Your task to perform on an android device: change notification settings in the gmail app Image 0: 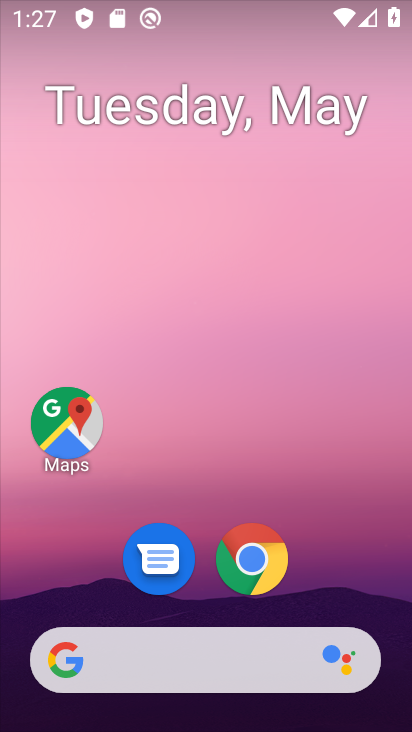
Step 0: drag from (396, 654) to (300, 52)
Your task to perform on an android device: change notification settings in the gmail app Image 1: 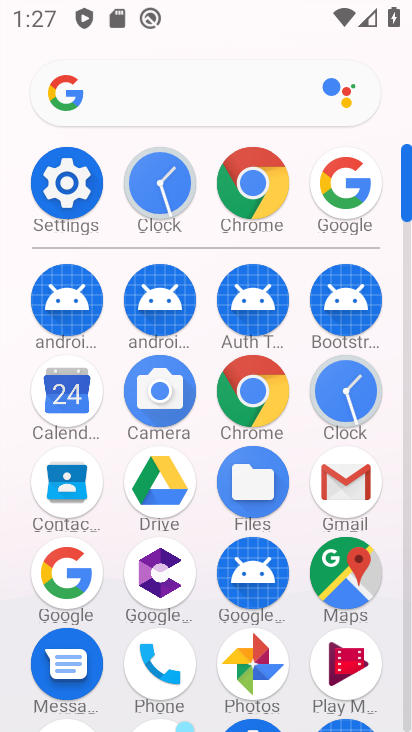
Step 1: click (341, 496)
Your task to perform on an android device: change notification settings in the gmail app Image 2: 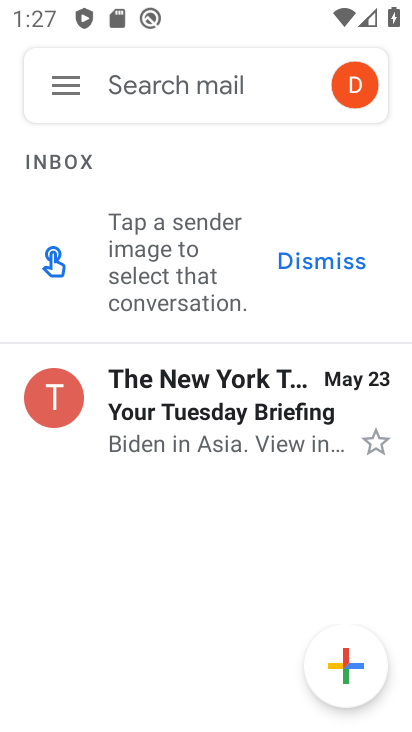
Step 2: click (51, 92)
Your task to perform on an android device: change notification settings in the gmail app Image 3: 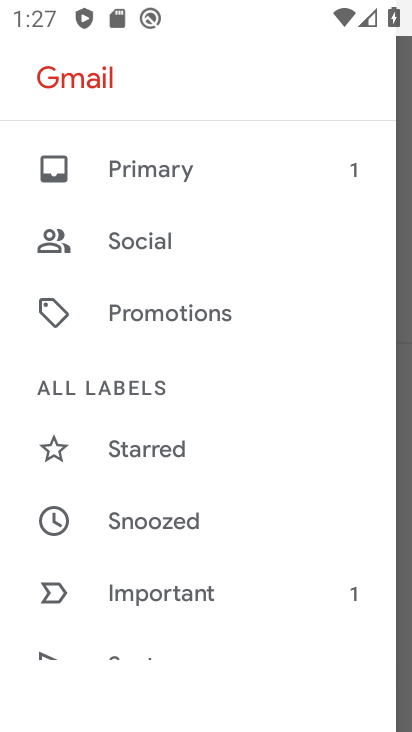
Step 3: drag from (162, 629) to (235, 192)
Your task to perform on an android device: change notification settings in the gmail app Image 4: 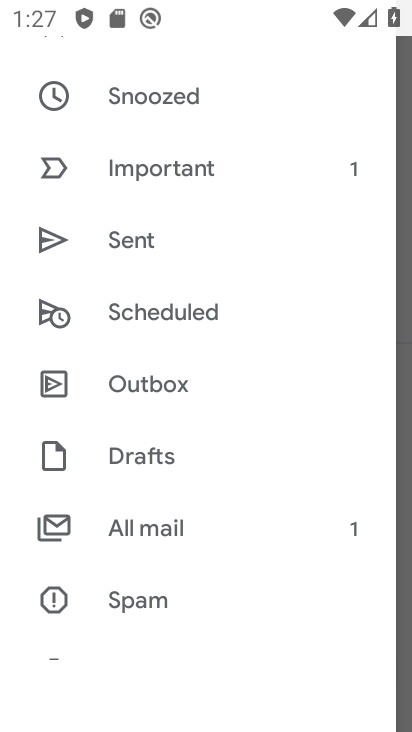
Step 4: drag from (181, 563) to (245, 128)
Your task to perform on an android device: change notification settings in the gmail app Image 5: 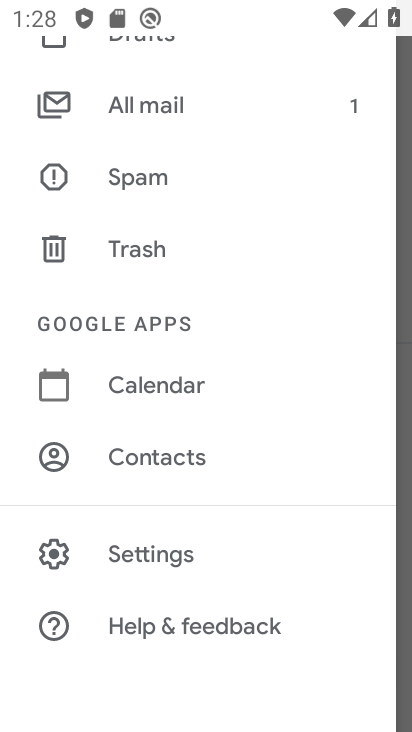
Step 5: click (198, 576)
Your task to perform on an android device: change notification settings in the gmail app Image 6: 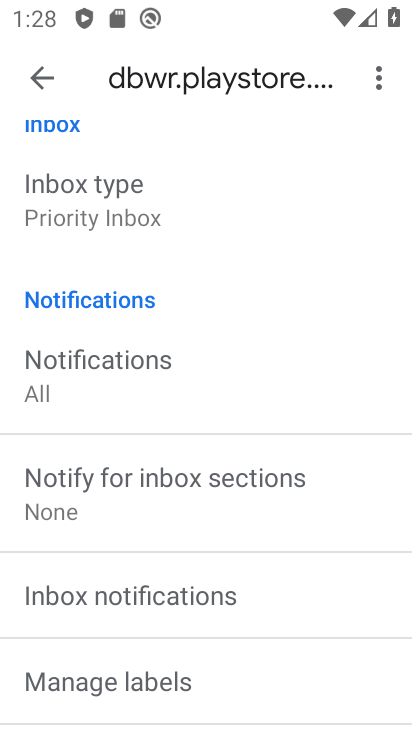
Step 6: click (197, 397)
Your task to perform on an android device: change notification settings in the gmail app Image 7: 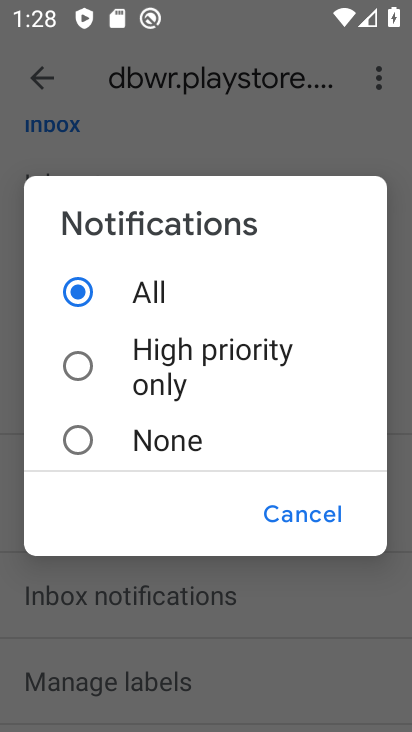
Step 7: click (123, 425)
Your task to perform on an android device: change notification settings in the gmail app Image 8: 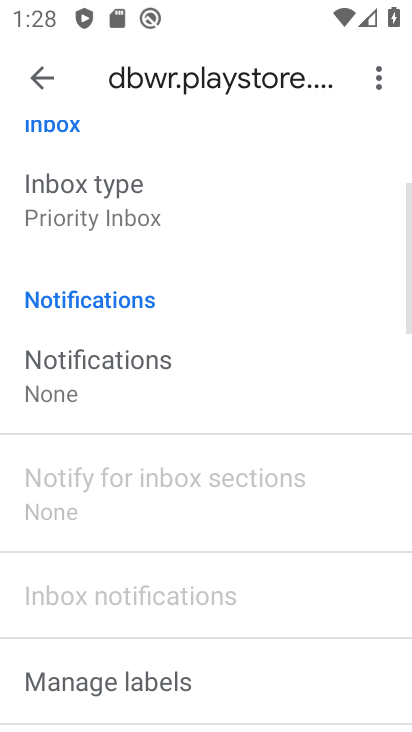
Step 8: task complete